Your task to perform on an android device: turn on location history Image 0: 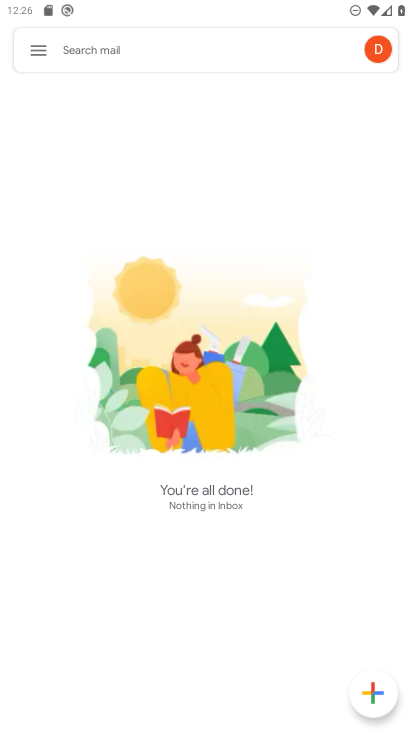
Step 0: drag from (167, 655) to (216, 234)
Your task to perform on an android device: turn on location history Image 1: 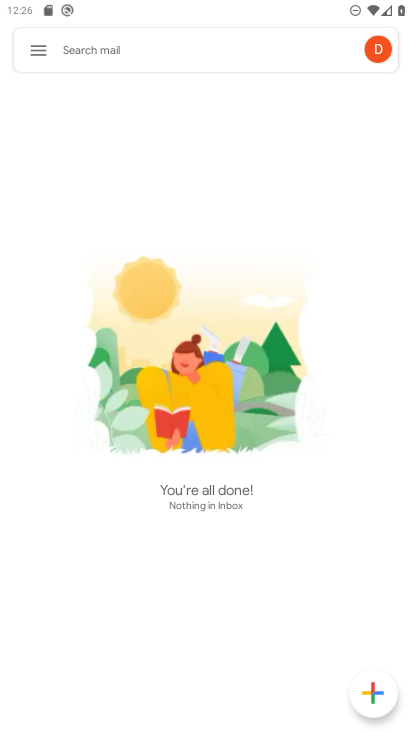
Step 1: press home button
Your task to perform on an android device: turn on location history Image 2: 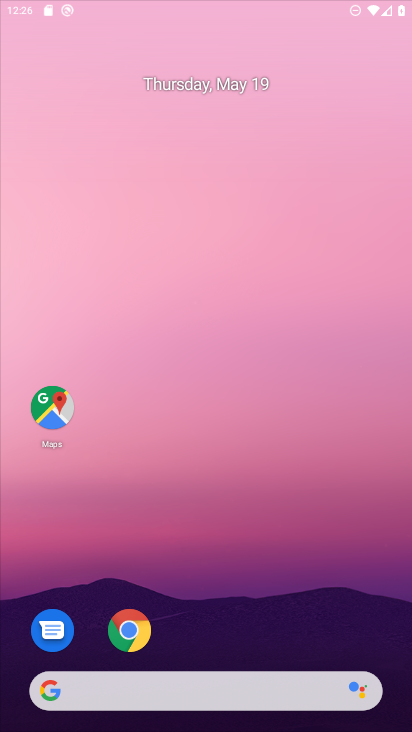
Step 2: drag from (120, 612) to (324, 12)
Your task to perform on an android device: turn on location history Image 3: 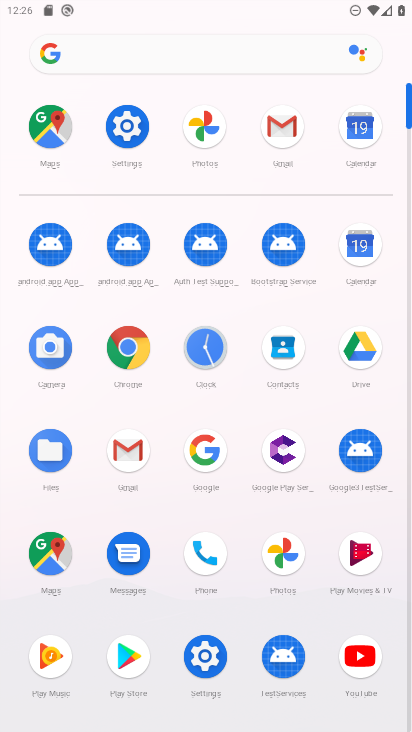
Step 3: click (117, 128)
Your task to perform on an android device: turn on location history Image 4: 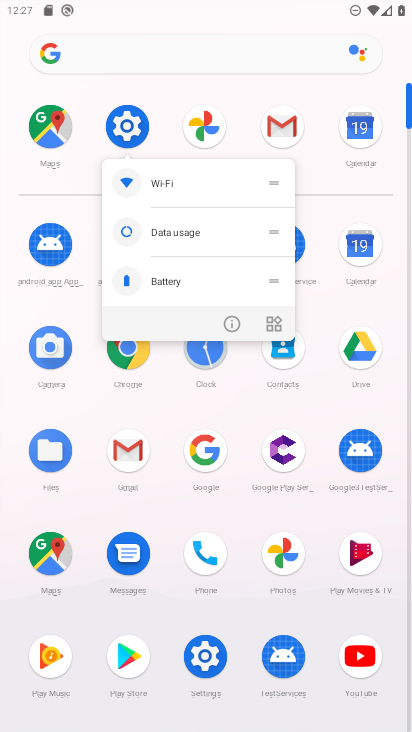
Step 4: click (232, 319)
Your task to perform on an android device: turn on location history Image 5: 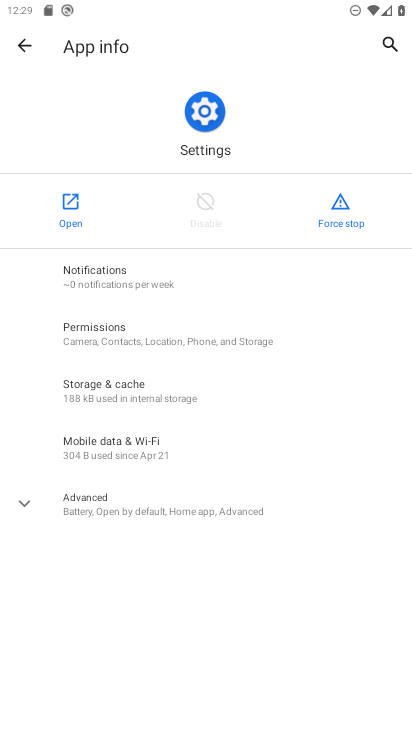
Step 5: click (76, 218)
Your task to perform on an android device: turn on location history Image 6: 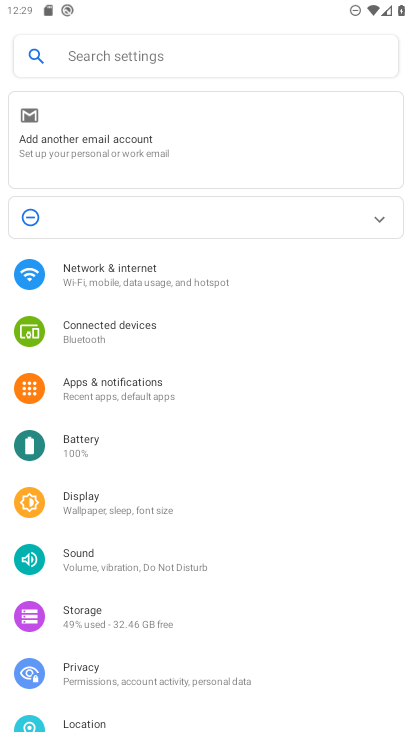
Step 6: drag from (138, 632) to (312, 100)
Your task to perform on an android device: turn on location history Image 7: 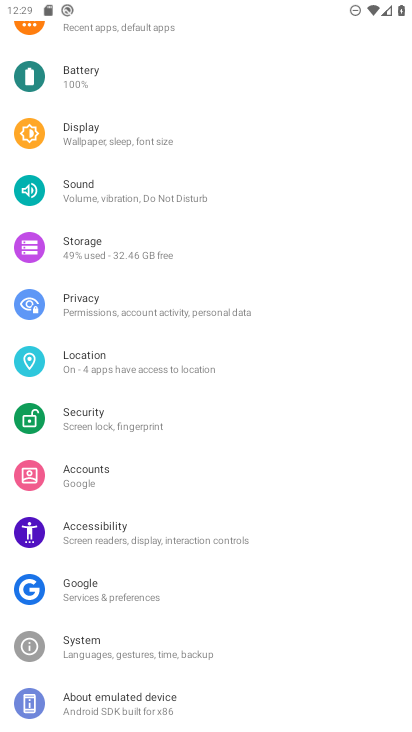
Step 7: click (140, 347)
Your task to perform on an android device: turn on location history Image 8: 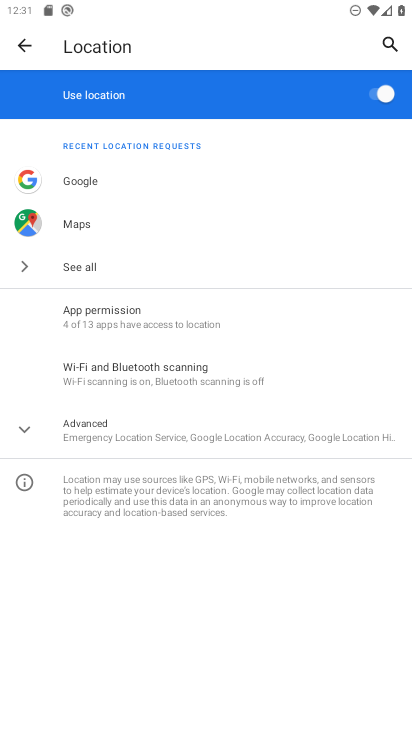
Step 8: click (107, 415)
Your task to perform on an android device: turn on location history Image 9: 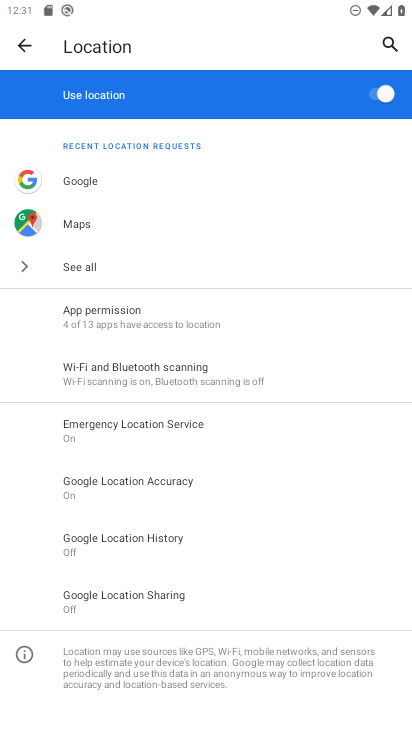
Step 9: click (160, 541)
Your task to perform on an android device: turn on location history Image 10: 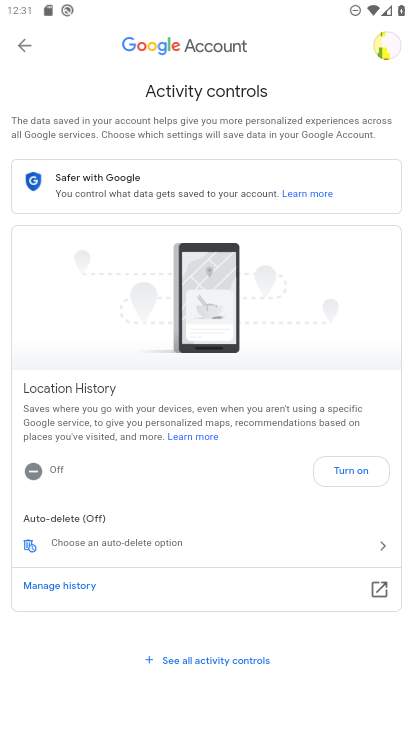
Step 10: drag from (286, 550) to (367, 118)
Your task to perform on an android device: turn on location history Image 11: 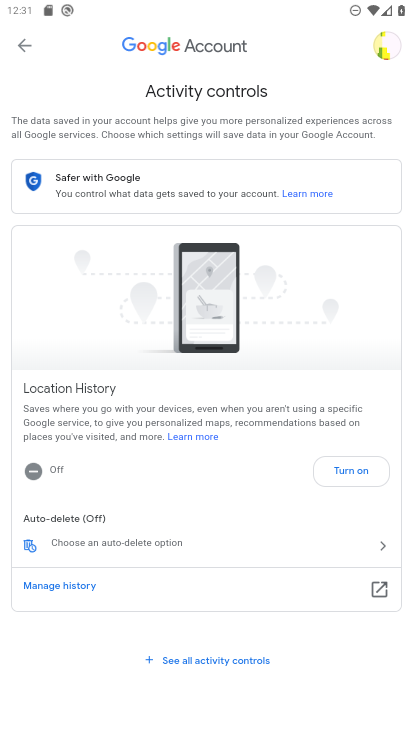
Step 11: click (354, 467)
Your task to perform on an android device: turn on location history Image 12: 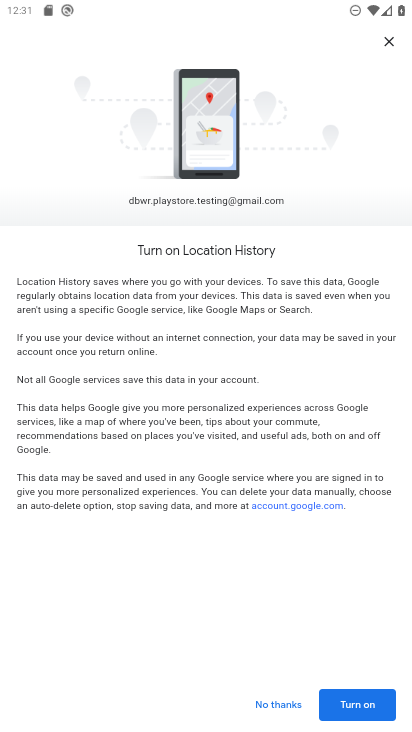
Step 12: drag from (238, 567) to (296, 172)
Your task to perform on an android device: turn on location history Image 13: 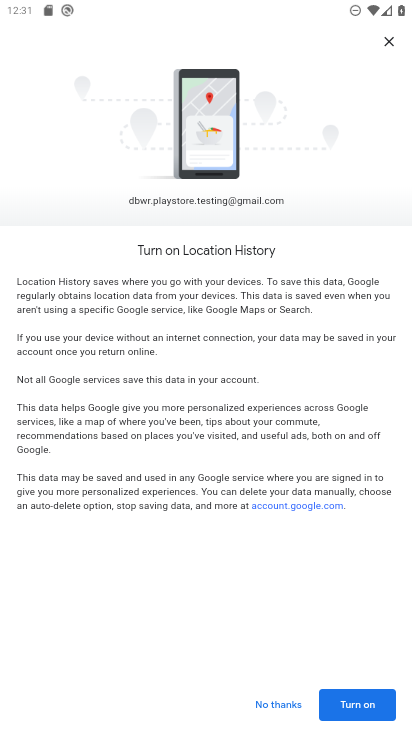
Step 13: click (350, 704)
Your task to perform on an android device: turn on location history Image 14: 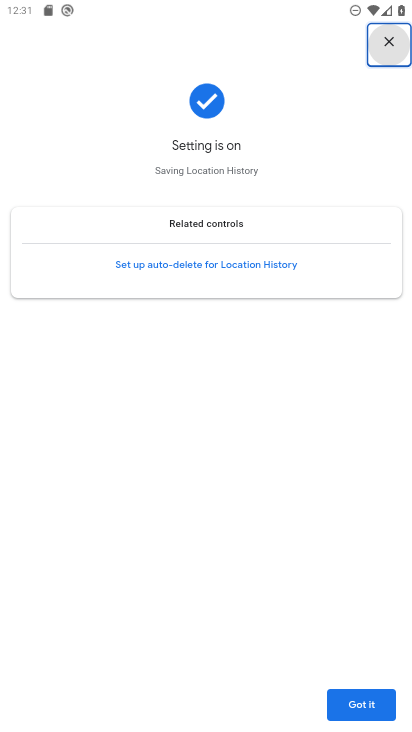
Step 14: click (366, 697)
Your task to perform on an android device: turn on location history Image 15: 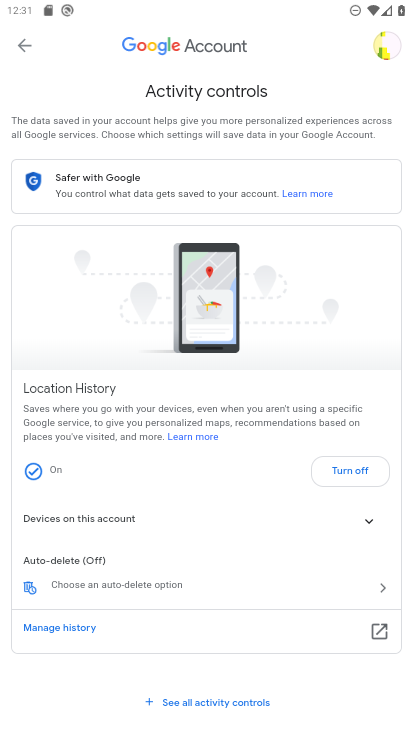
Step 15: task complete